Your task to perform on an android device: allow notifications from all sites in the chrome app Image 0: 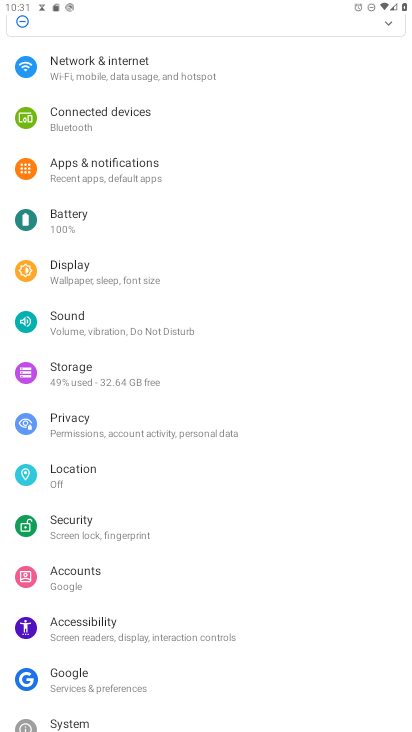
Step 0: press home button
Your task to perform on an android device: allow notifications from all sites in the chrome app Image 1: 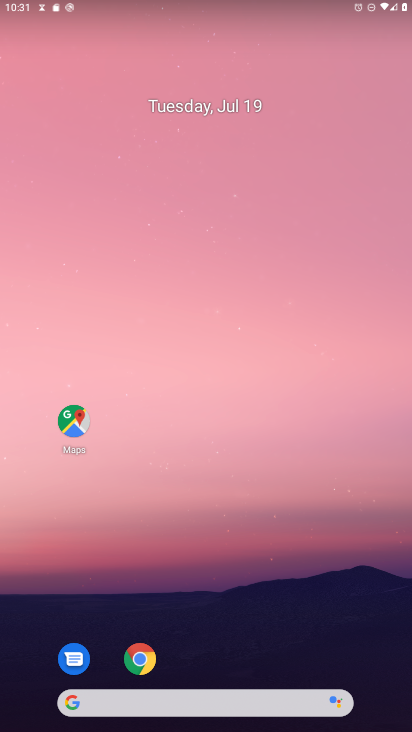
Step 1: drag from (229, 618) to (237, 281)
Your task to perform on an android device: allow notifications from all sites in the chrome app Image 2: 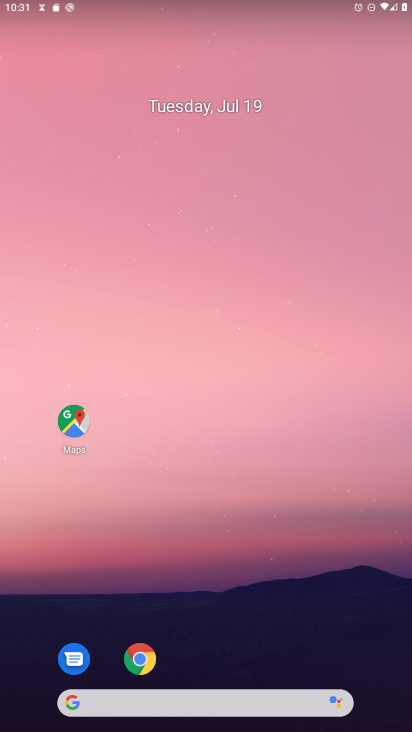
Step 2: drag from (244, 467) to (248, 115)
Your task to perform on an android device: allow notifications from all sites in the chrome app Image 3: 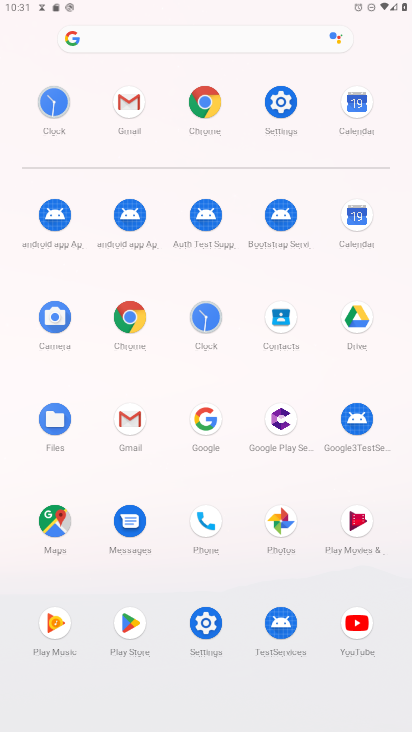
Step 3: click (215, 103)
Your task to perform on an android device: allow notifications from all sites in the chrome app Image 4: 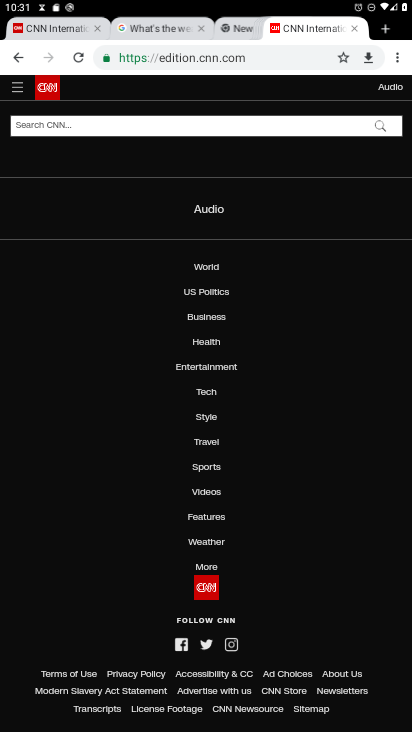
Step 4: click (398, 59)
Your task to perform on an android device: allow notifications from all sites in the chrome app Image 5: 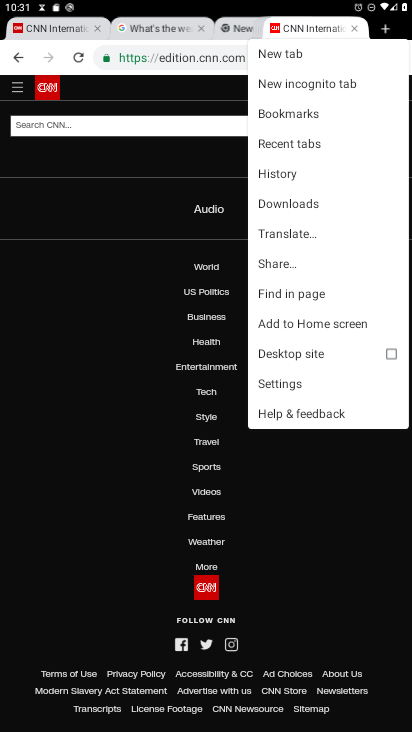
Step 5: click (294, 389)
Your task to perform on an android device: allow notifications from all sites in the chrome app Image 6: 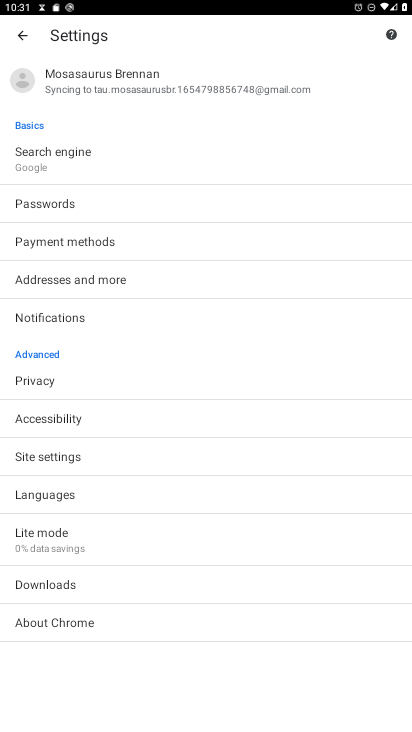
Step 6: click (68, 464)
Your task to perform on an android device: allow notifications from all sites in the chrome app Image 7: 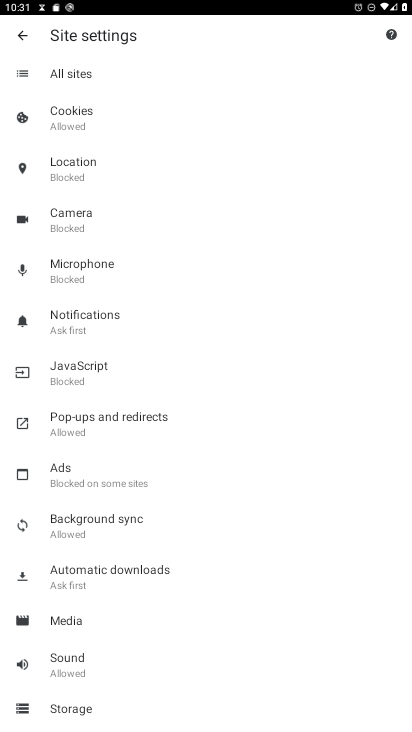
Step 7: click (54, 121)
Your task to perform on an android device: allow notifications from all sites in the chrome app Image 8: 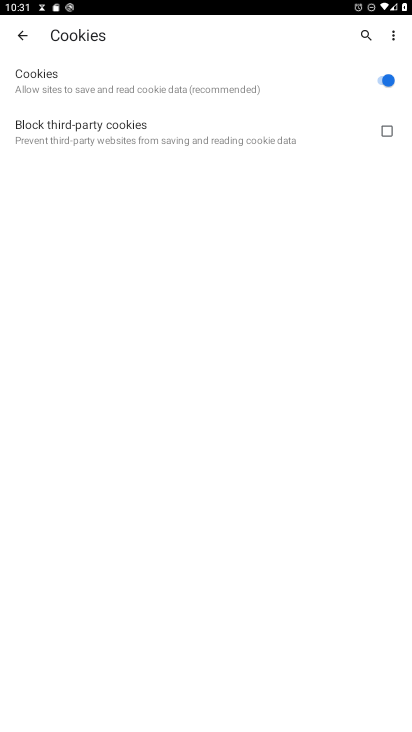
Step 8: click (25, 30)
Your task to perform on an android device: allow notifications from all sites in the chrome app Image 9: 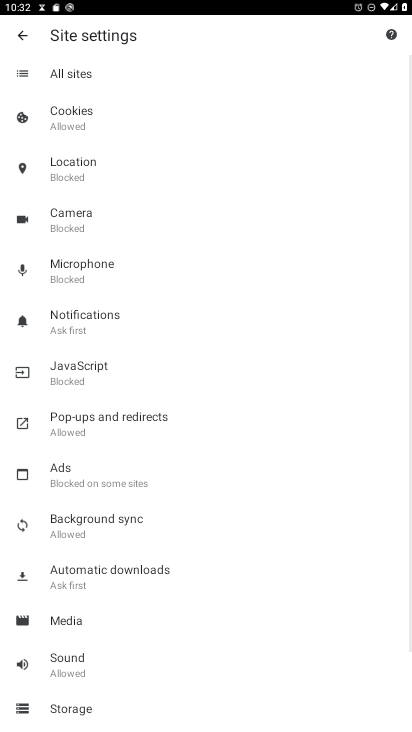
Step 9: click (72, 185)
Your task to perform on an android device: allow notifications from all sites in the chrome app Image 10: 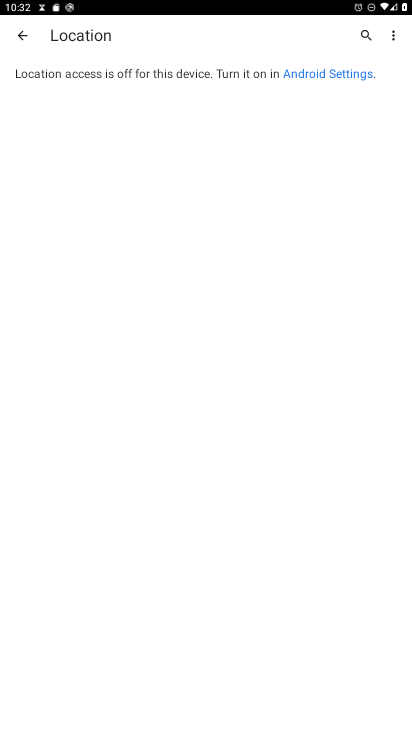
Step 10: click (28, 29)
Your task to perform on an android device: allow notifications from all sites in the chrome app Image 11: 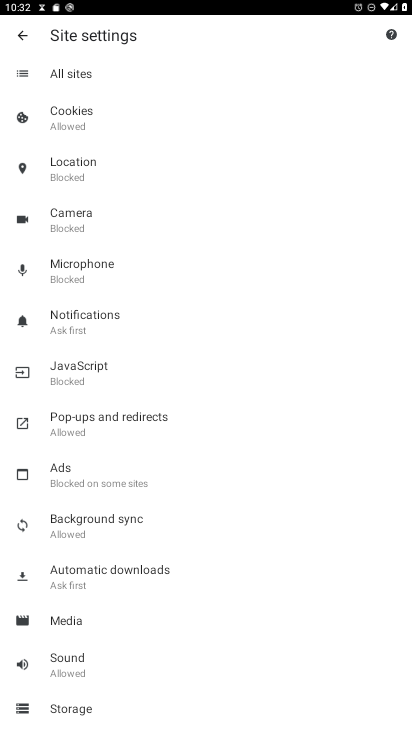
Step 11: click (100, 360)
Your task to perform on an android device: allow notifications from all sites in the chrome app Image 12: 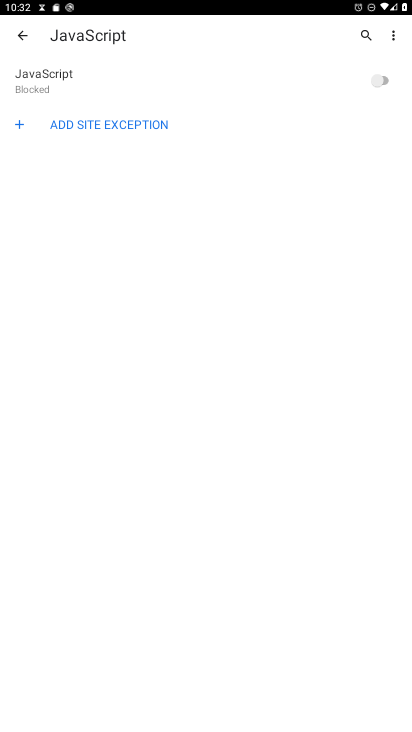
Step 12: click (377, 76)
Your task to perform on an android device: allow notifications from all sites in the chrome app Image 13: 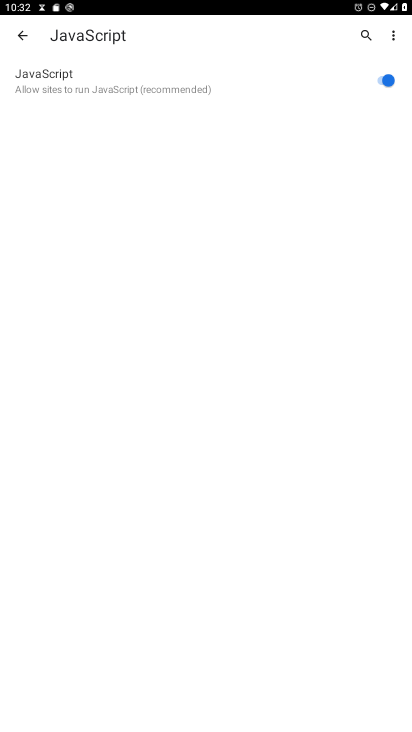
Step 13: click (27, 36)
Your task to perform on an android device: allow notifications from all sites in the chrome app Image 14: 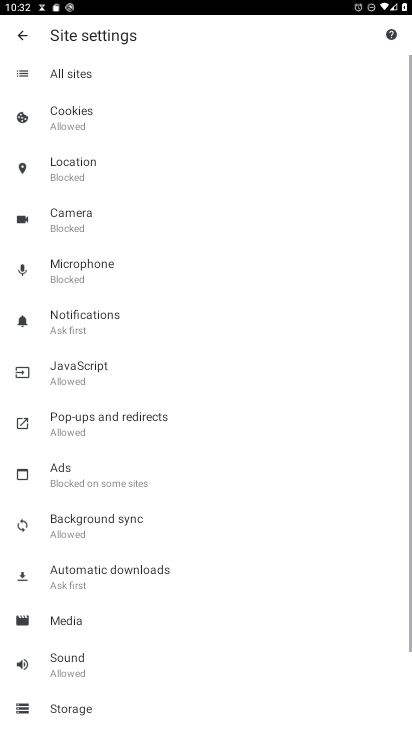
Step 14: click (85, 431)
Your task to perform on an android device: allow notifications from all sites in the chrome app Image 15: 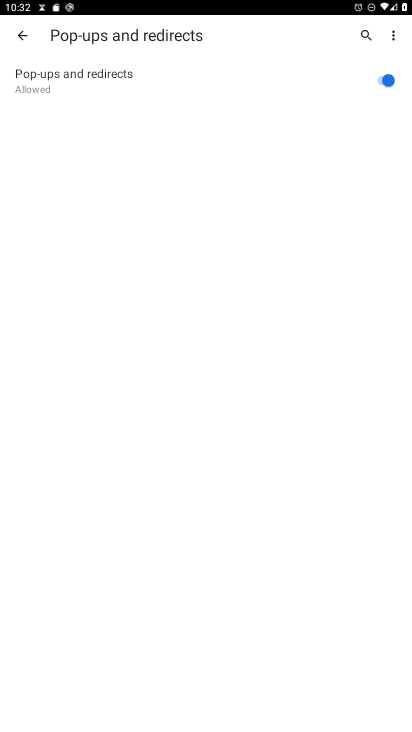
Step 15: click (19, 29)
Your task to perform on an android device: allow notifications from all sites in the chrome app Image 16: 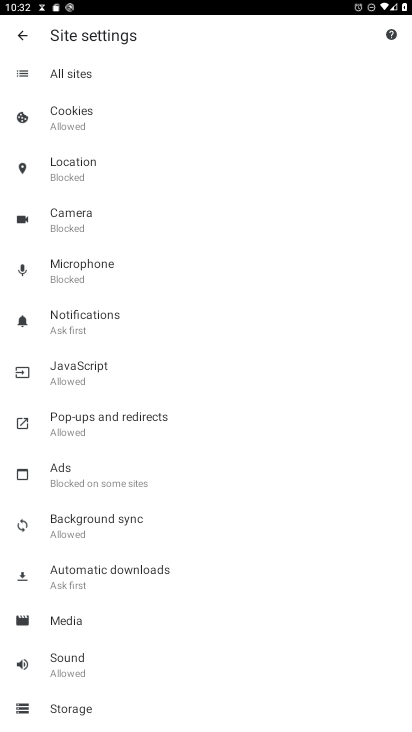
Step 16: click (130, 566)
Your task to perform on an android device: allow notifications from all sites in the chrome app Image 17: 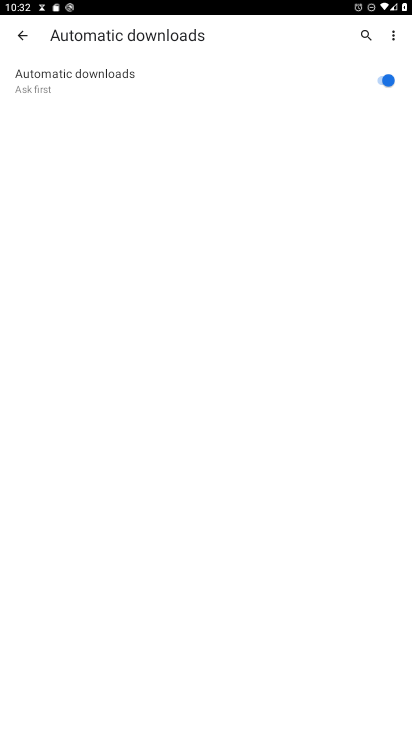
Step 17: click (19, 42)
Your task to perform on an android device: allow notifications from all sites in the chrome app Image 18: 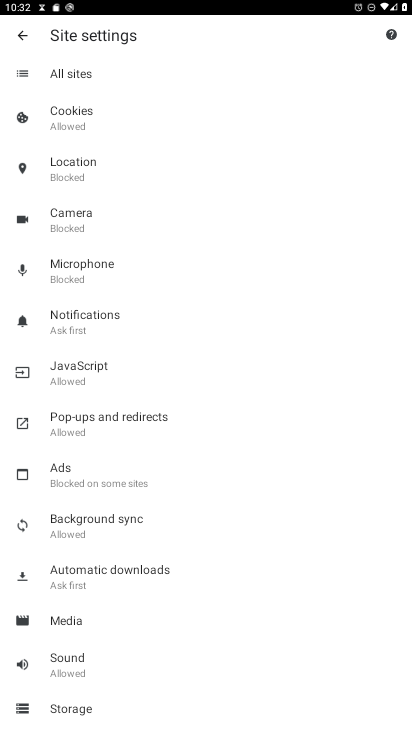
Step 18: task complete